Your task to perform on an android device: set the stopwatch Image 0: 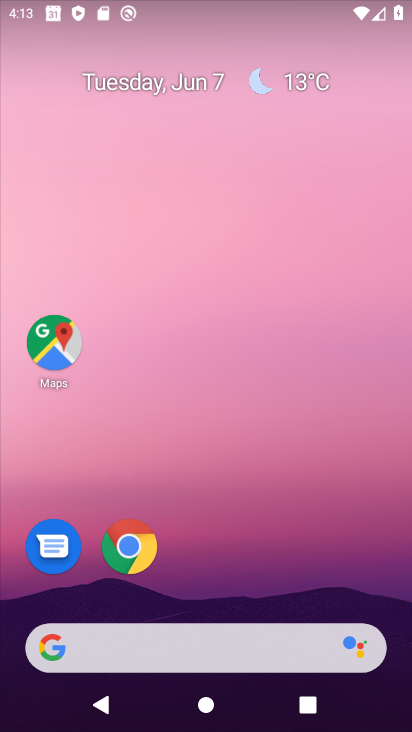
Step 0: drag from (208, 609) to (268, 10)
Your task to perform on an android device: set the stopwatch Image 1: 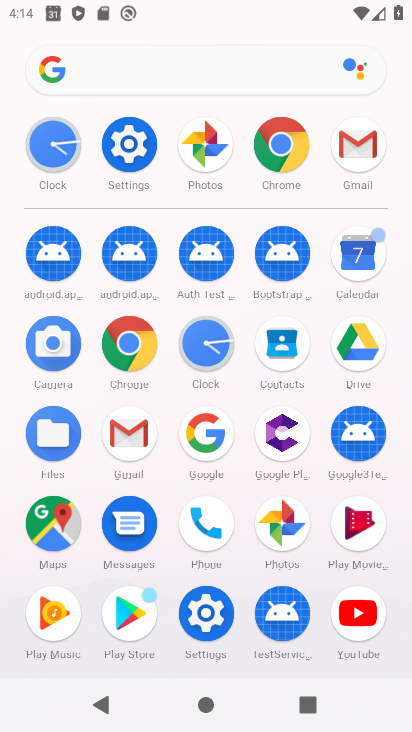
Step 1: click (127, 146)
Your task to perform on an android device: set the stopwatch Image 2: 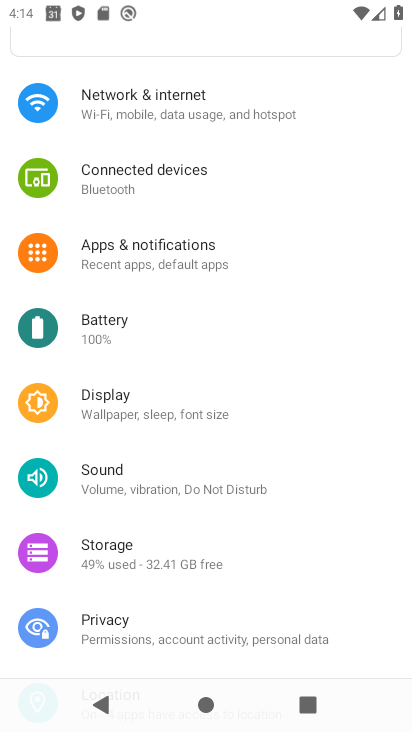
Step 2: drag from (207, 513) to (188, 126)
Your task to perform on an android device: set the stopwatch Image 3: 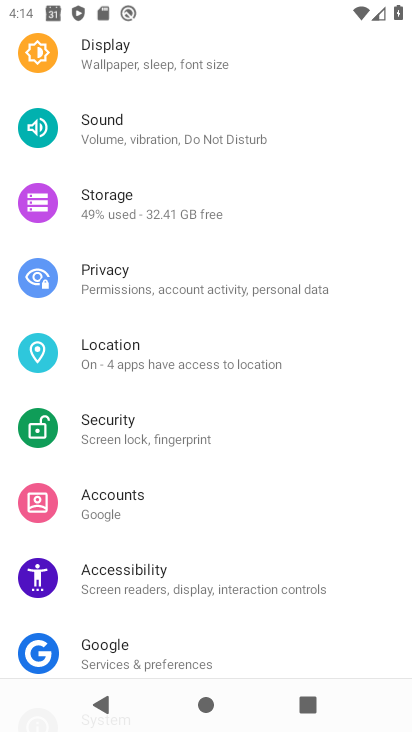
Step 3: press home button
Your task to perform on an android device: set the stopwatch Image 4: 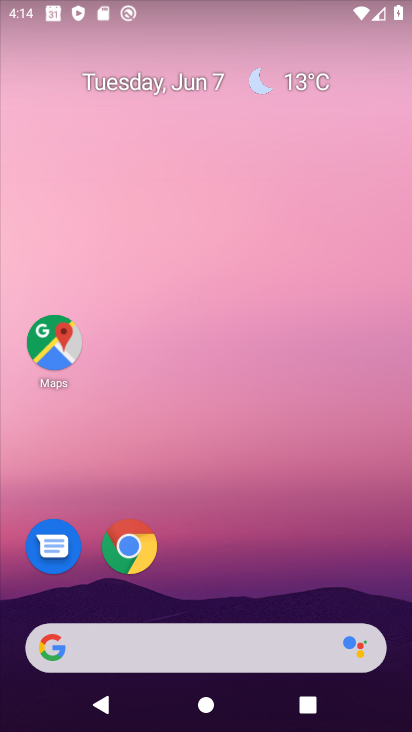
Step 4: drag from (165, 595) to (240, 18)
Your task to perform on an android device: set the stopwatch Image 5: 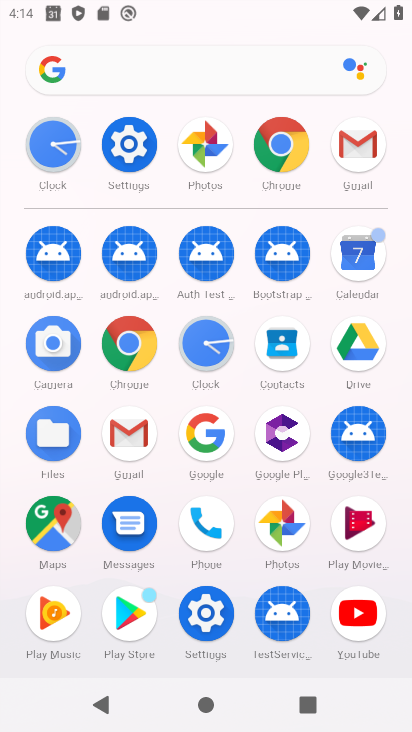
Step 5: click (196, 327)
Your task to perform on an android device: set the stopwatch Image 6: 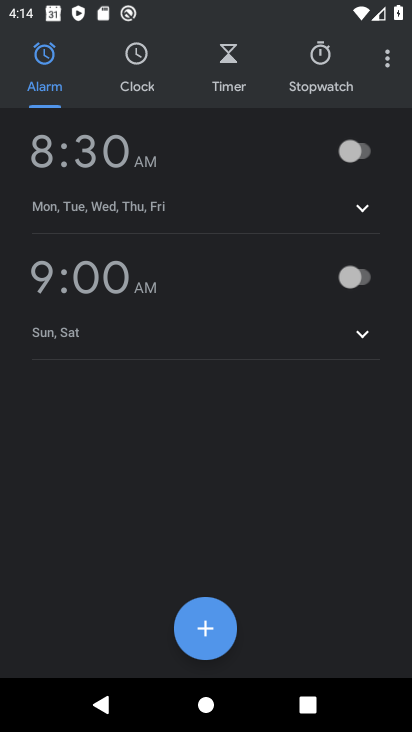
Step 6: click (297, 58)
Your task to perform on an android device: set the stopwatch Image 7: 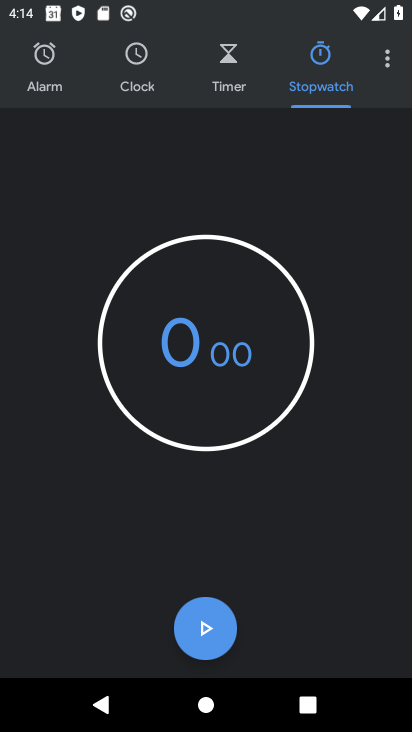
Step 7: click (214, 621)
Your task to perform on an android device: set the stopwatch Image 8: 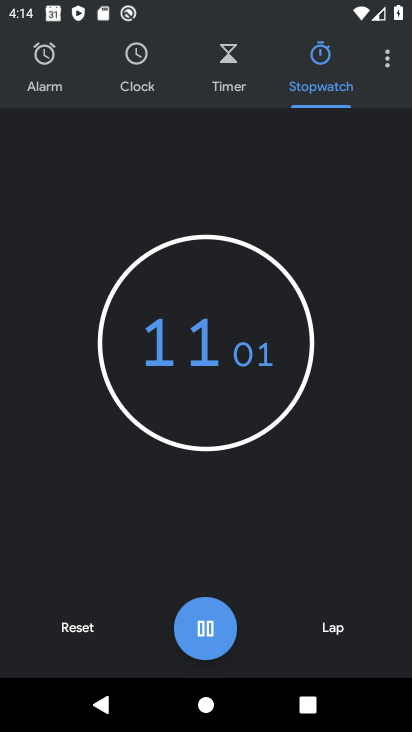
Step 8: task complete